Your task to perform on an android device: change the upload size in google photos Image 0: 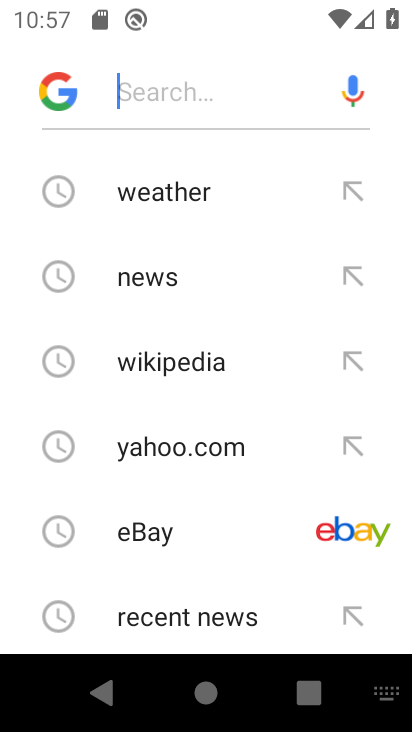
Step 0: press home button
Your task to perform on an android device: change the upload size in google photos Image 1: 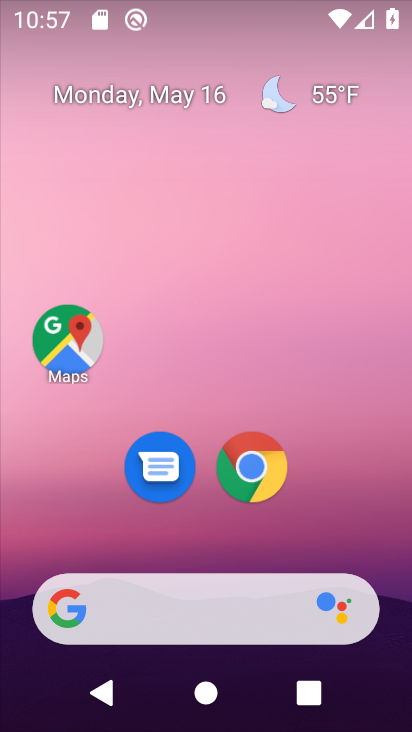
Step 1: drag from (208, 512) to (286, 51)
Your task to perform on an android device: change the upload size in google photos Image 2: 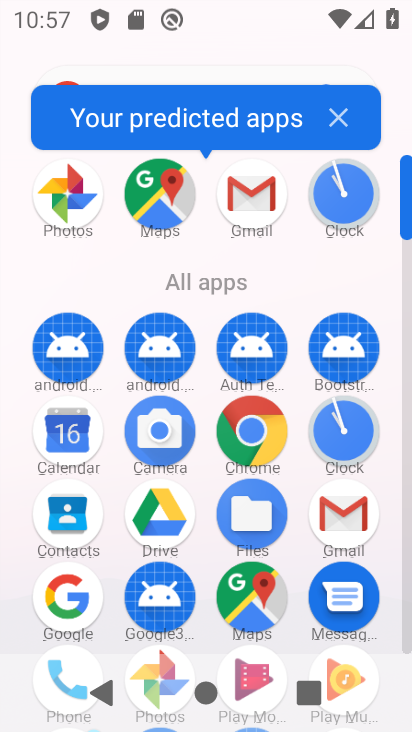
Step 2: drag from (242, 565) to (288, 226)
Your task to perform on an android device: change the upload size in google photos Image 3: 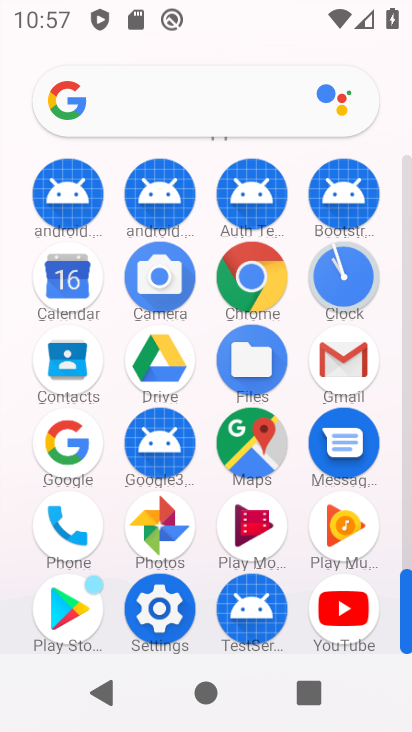
Step 3: click (170, 544)
Your task to perform on an android device: change the upload size in google photos Image 4: 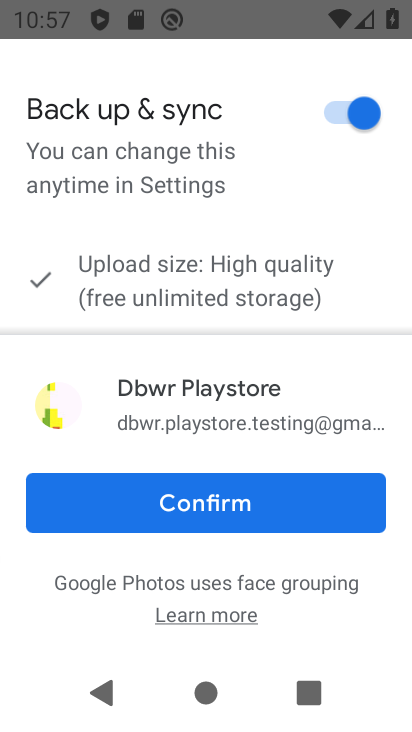
Step 4: click (258, 520)
Your task to perform on an android device: change the upload size in google photos Image 5: 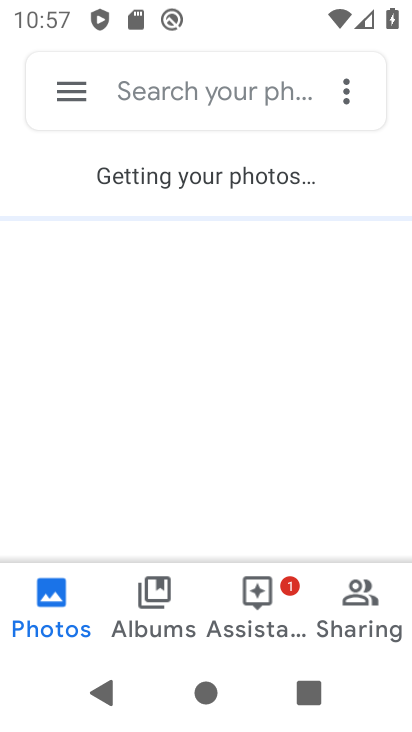
Step 5: click (66, 94)
Your task to perform on an android device: change the upload size in google photos Image 6: 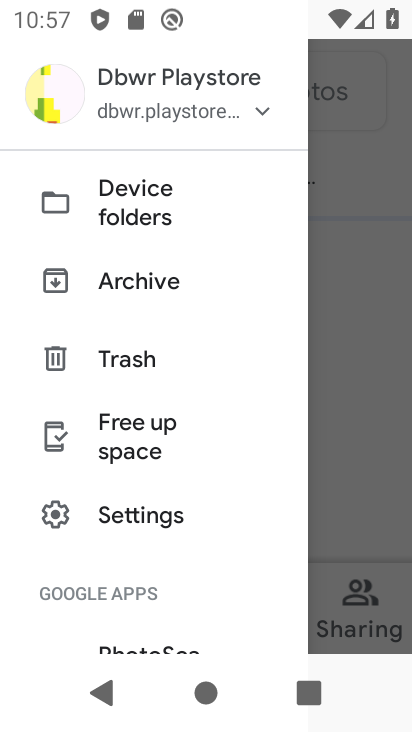
Step 6: click (134, 524)
Your task to perform on an android device: change the upload size in google photos Image 7: 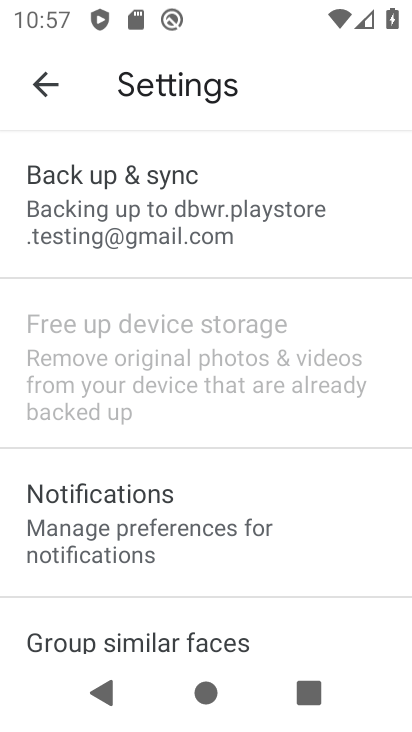
Step 7: drag from (134, 554) to (185, 215)
Your task to perform on an android device: change the upload size in google photos Image 8: 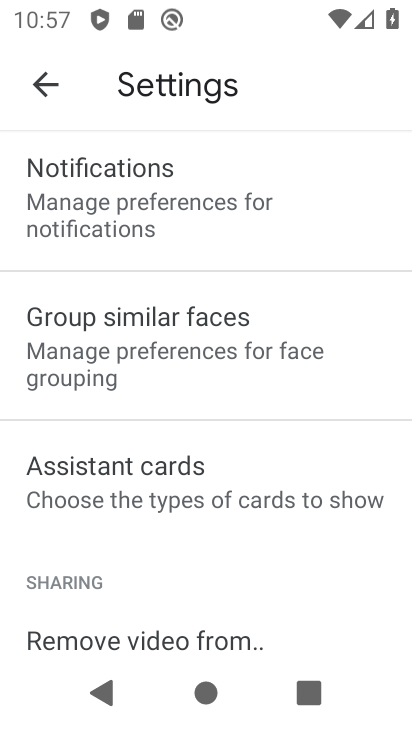
Step 8: drag from (153, 544) to (163, 216)
Your task to perform on an android device: change the upload size in google photos Image 9: 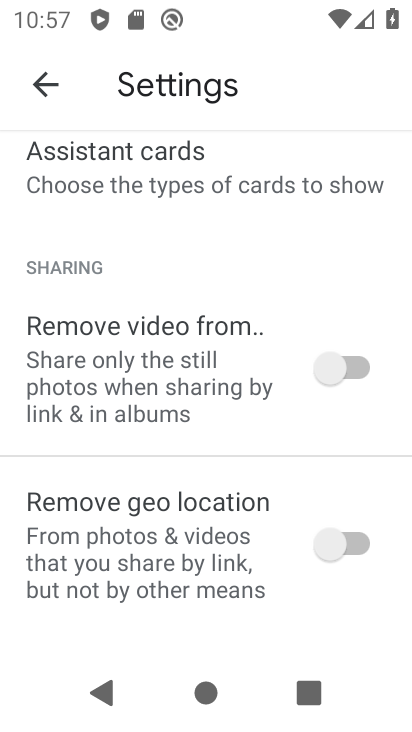
Step 9: drag from (165, 237) to (127, 550)
Your task to perform on an android device: change the upload size in google photos Image 10: 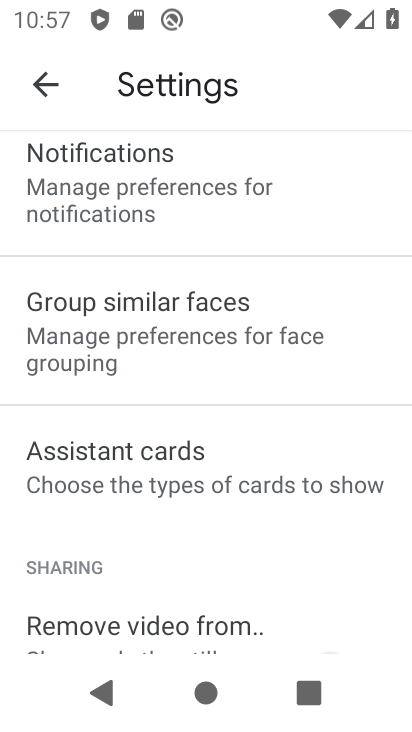
Step 10: drag from (149, 84) to (183, 373)
Your task to perform on an android device: change the upload size in google photos Image 11: 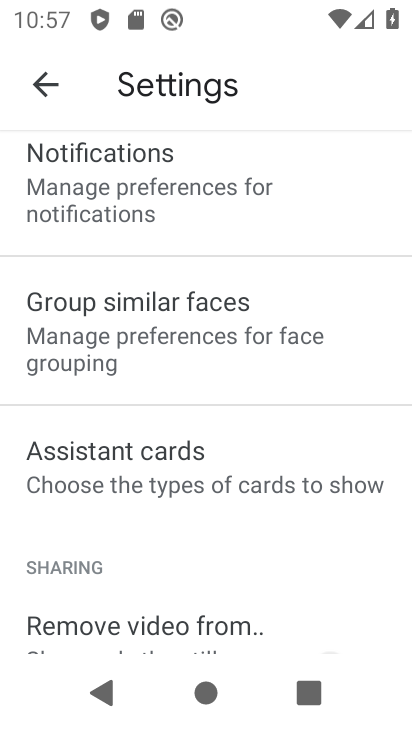
Step 11: drag from (172, 227) to (169, 605)
Your task to perform on an android device: change the upload size in google photos Image 12: 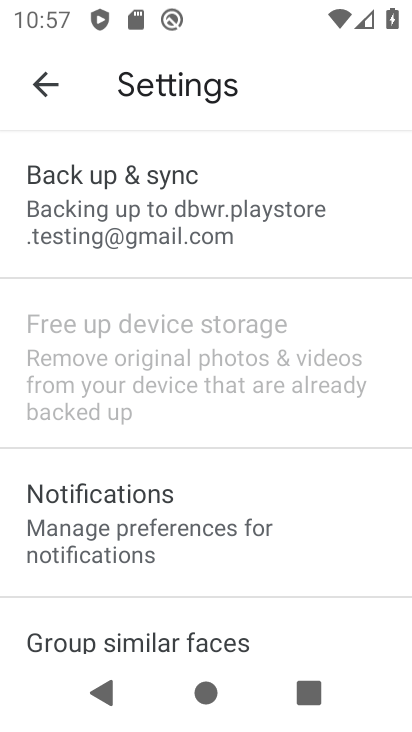
Step 12: click (190, 226)
Your task to perform on an android device: change the upload size in google photos Image 13: 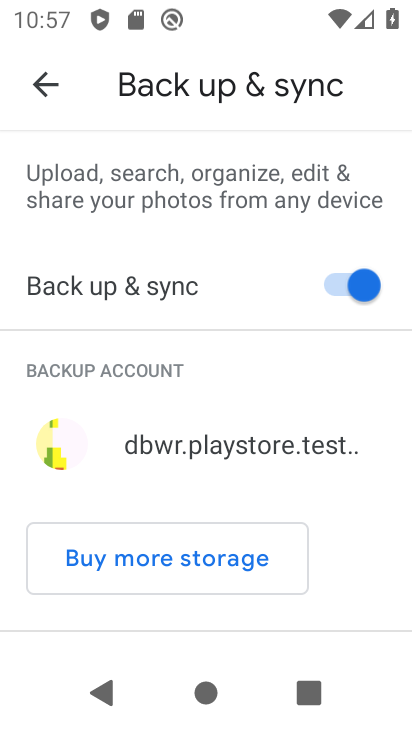
Step 13: drag from (230, 563) to (274, 232)
Your task to perform on an android device: change the upload size in google photos Image 14: 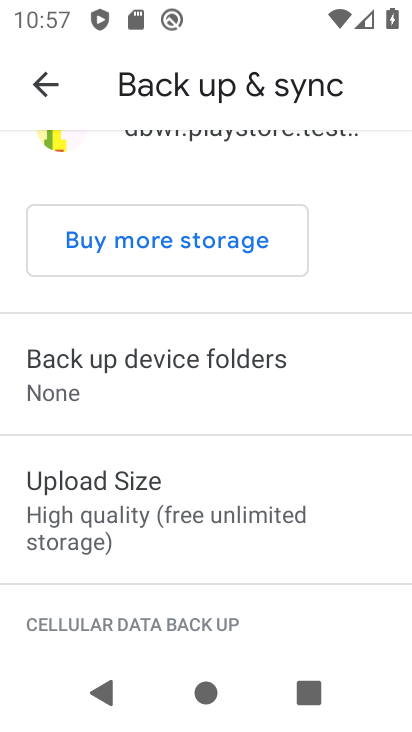
Step 14: click (222, 506)
Your task to perform on an android device: change the upload size in google photos Image 15: 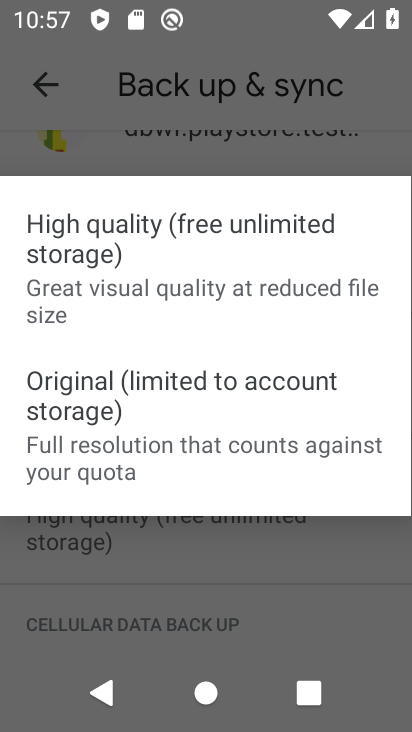
Step 15: click (181, 389)
Your task to perform on an android device: change the upload size in google photos Image 16: 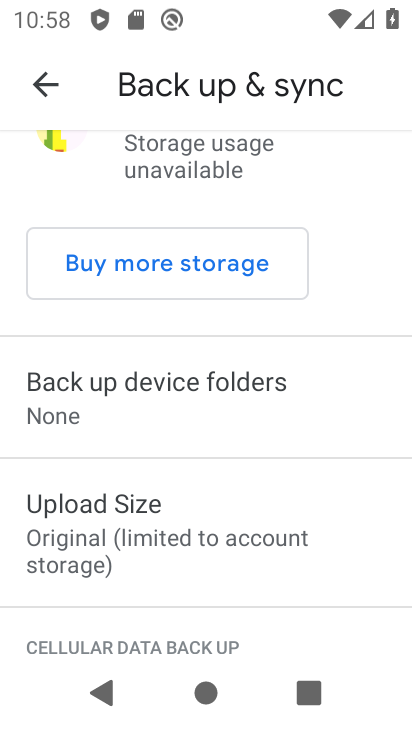
Step 16: task complete